Your task to perform on an android device: Clear all items from cart on ebay.com. Add razer blade to the cart on ebay.com, then select checkout. Image 0: 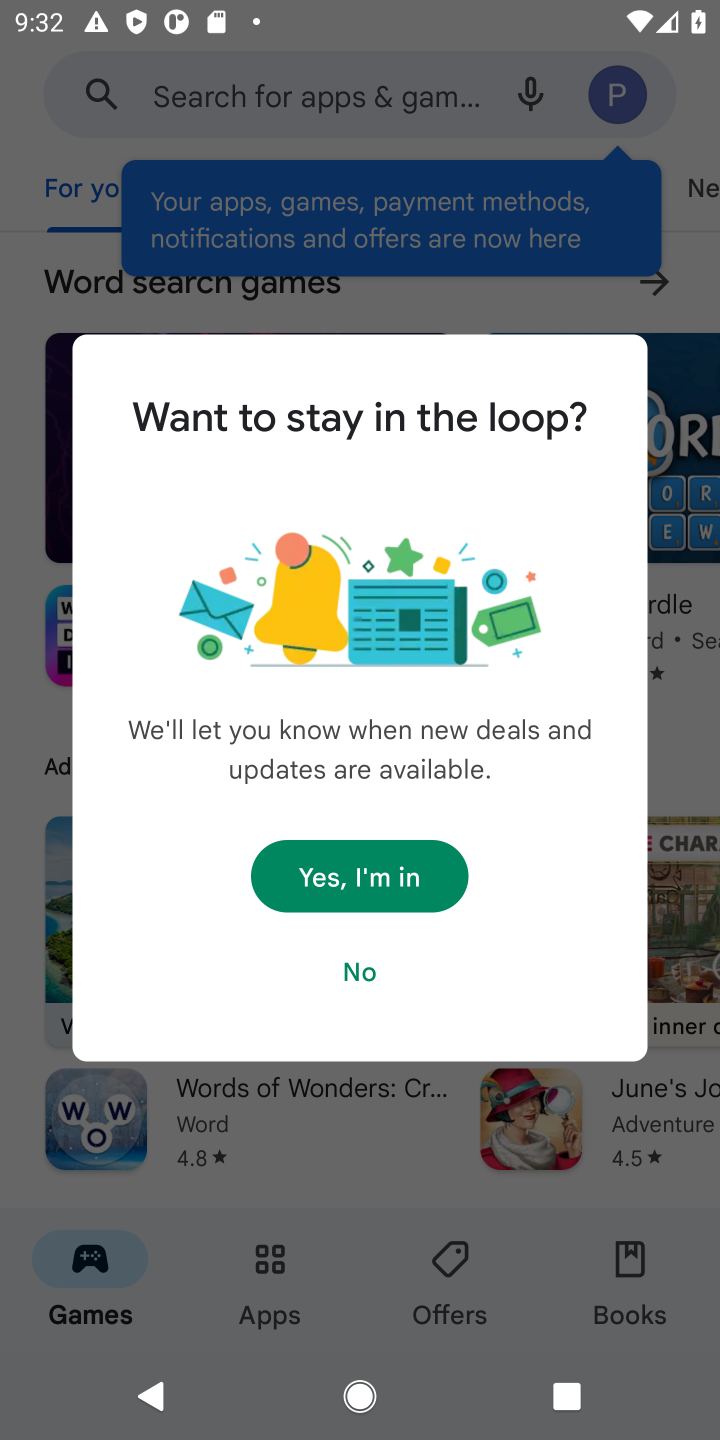
Step 0: press home button
Your task to perform on an android device: Clear all items from cart on ebay.com. Add razer blade to the cart on ebay.com, then select checkout. Image 1: 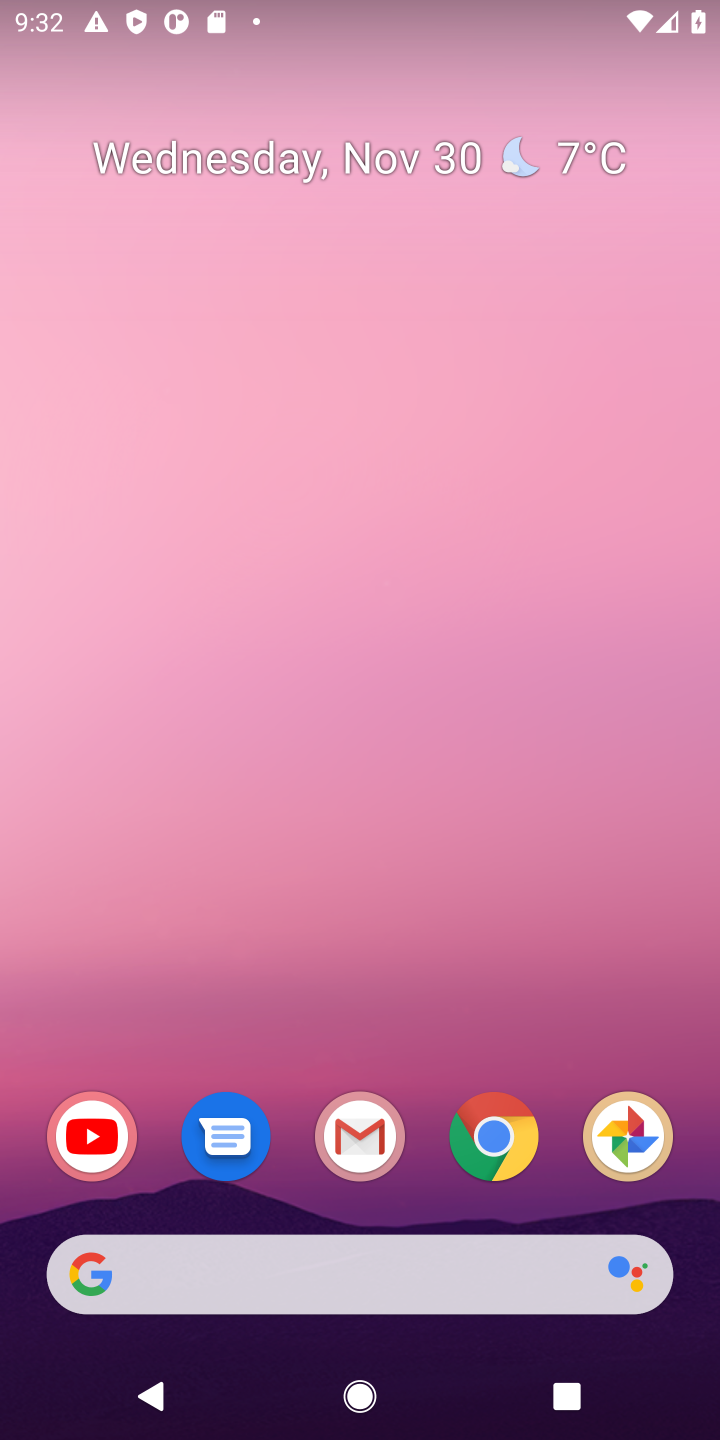
Step 1: click (495, 1153)
Your task to perform on an android device: Clear all items from cart on ebay.com. Add razer blade to the cart on ebay.com, then select checkout. Image 2: 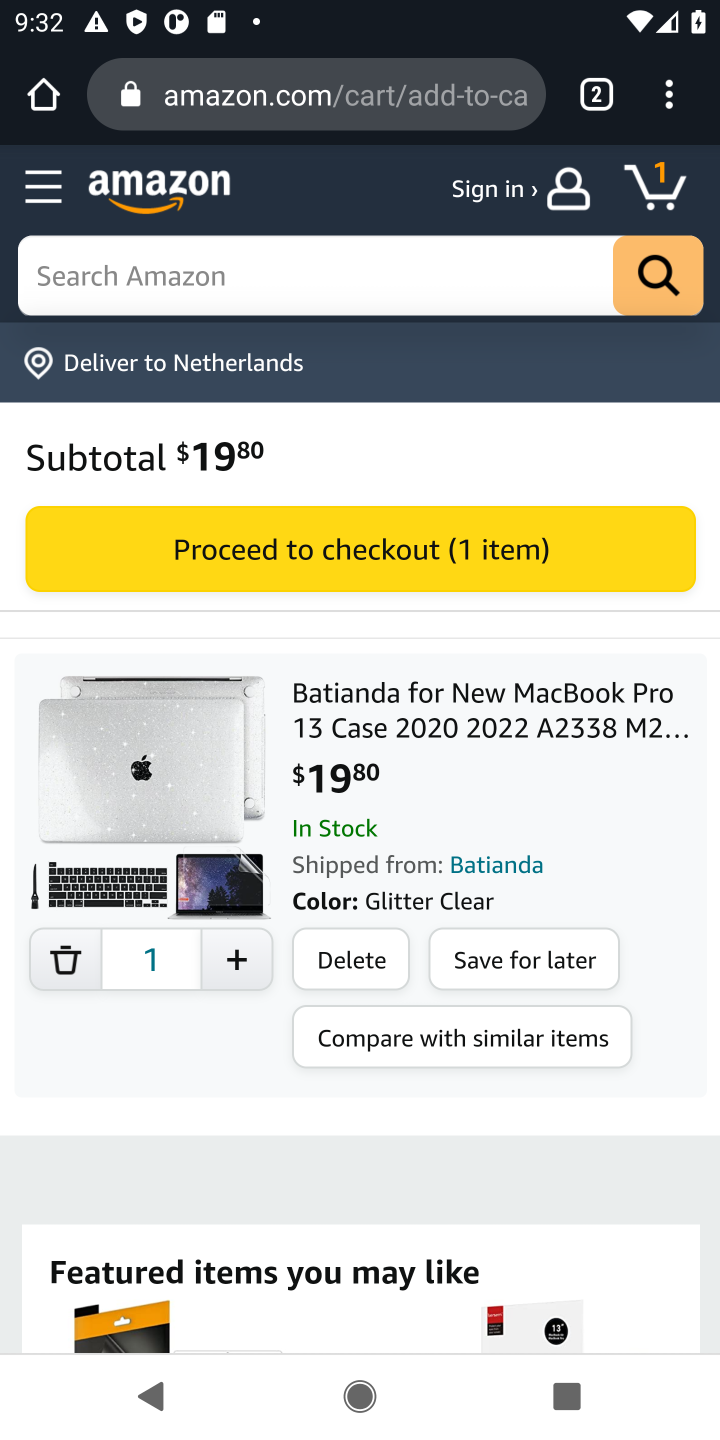
Step 2: click (336, 100)
Your task to perform on an android device: Clear all items from cart on ebay.com. Add razer blade to the cart on ebay.com, then select checkout. Image 3: 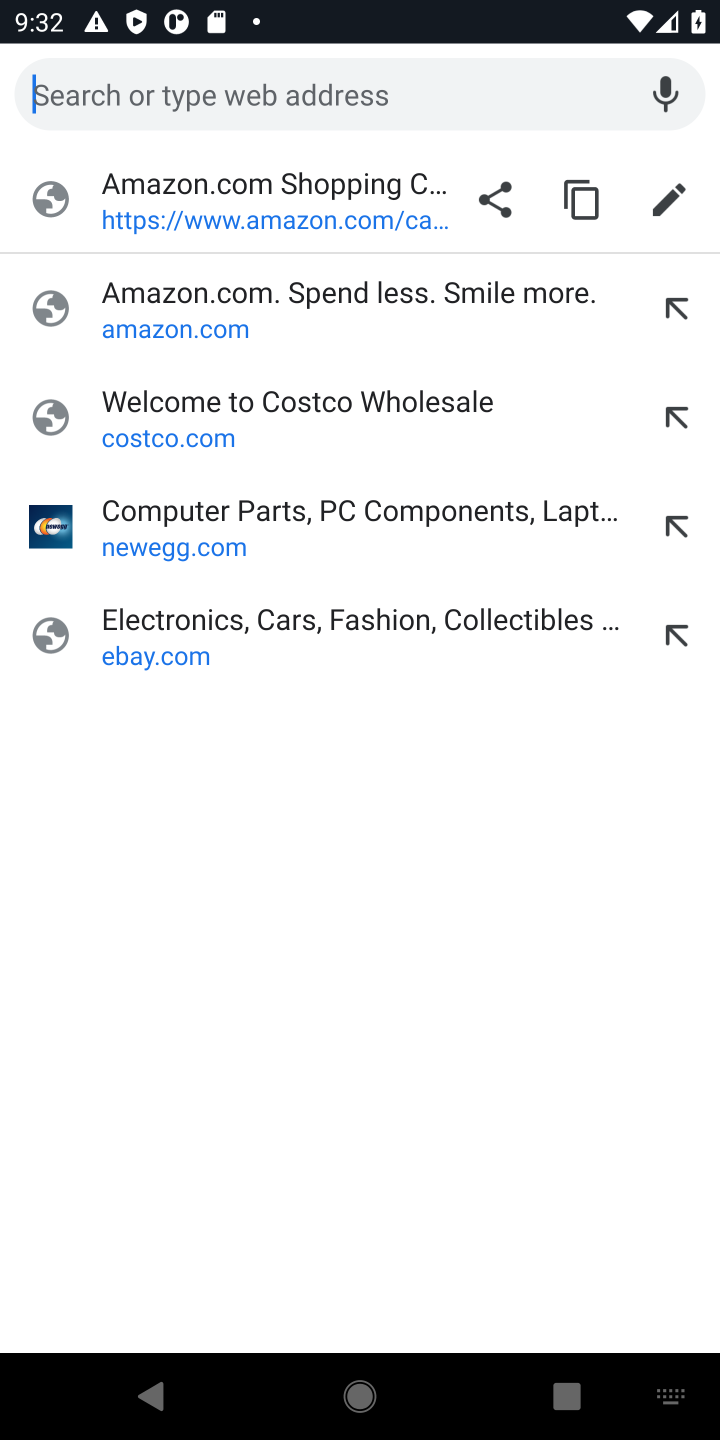
Step 3: click (113, 645)
Your task to perform on an android device: Clear all items from cart on ebay.com. Add razer blade to the cart on ebay.com, then select checkout. Image 4: 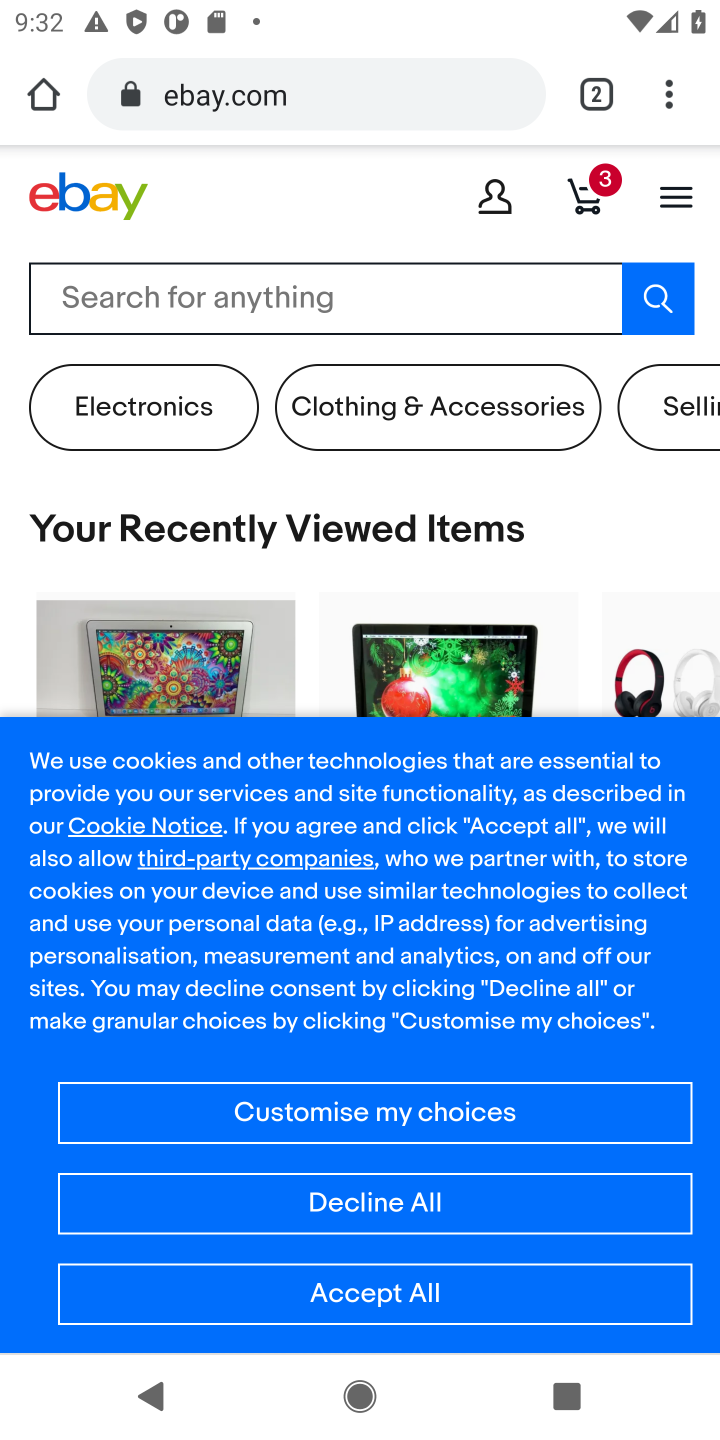
Step 4: click (582, 208)
Your task to perform on an android device: Clear all items from cart on ebay.com. Add razer blade to the cart on ebay.com, then select checkout. Image 5: 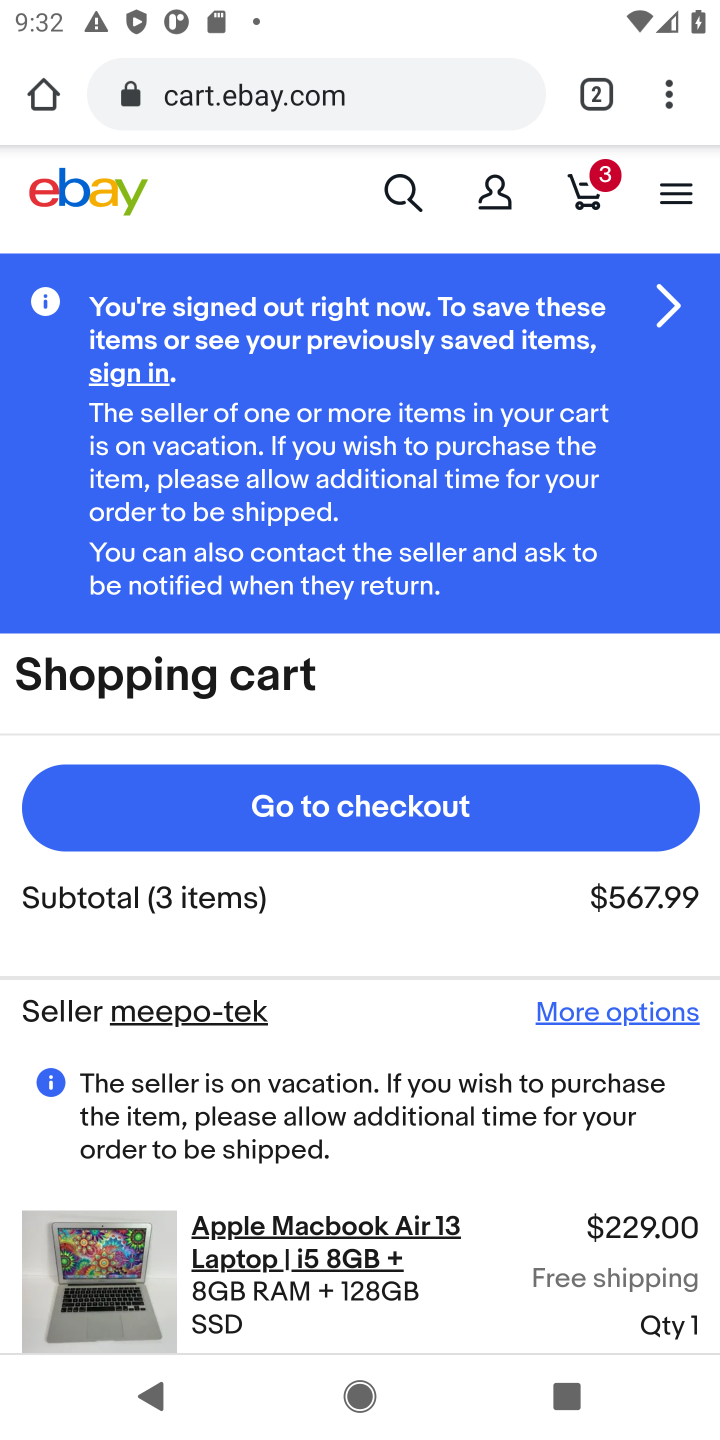
Step 5: drag from (357, 1142) to (343, 612)
Your task to perform on an android device: Clear all items from cart on ebay.com. Add razer blade to the cart on ebay.com, then select checkout. Image 6: 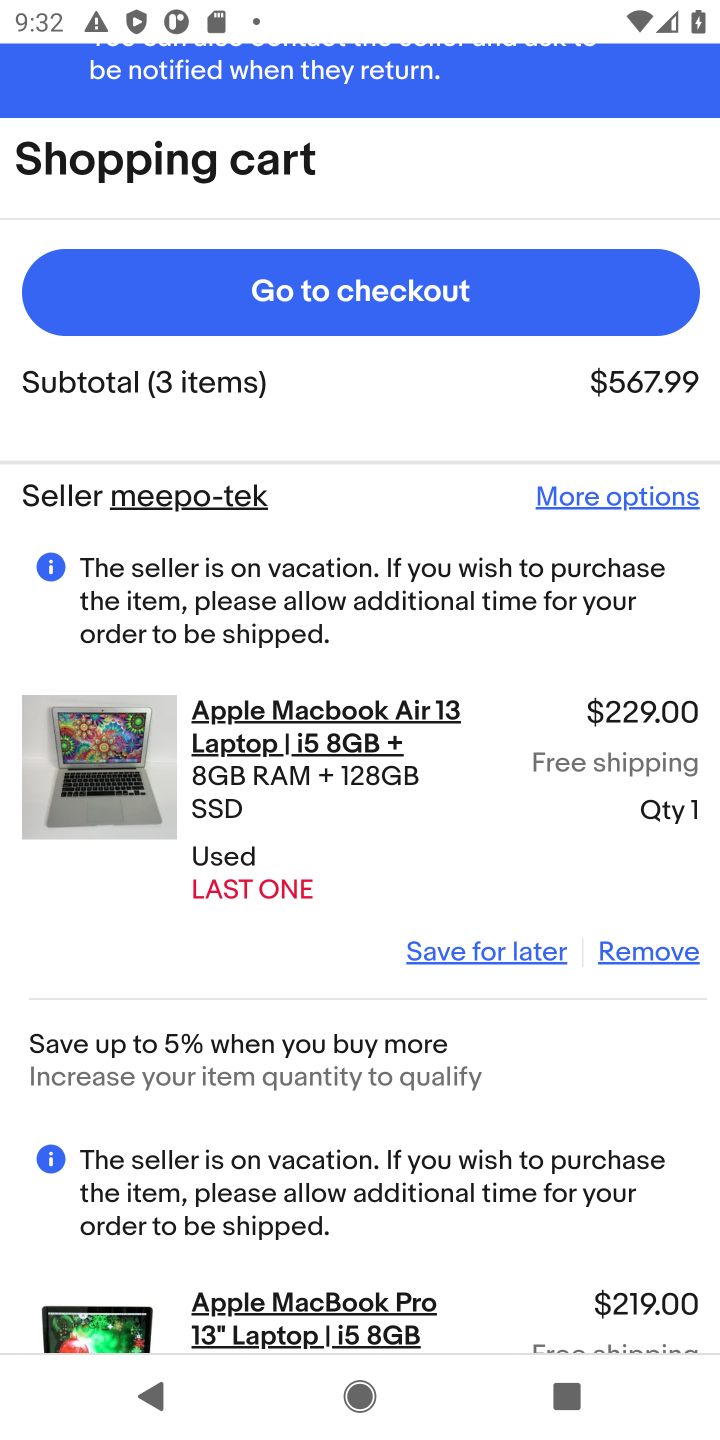
Step 6: click (654, 959)
Your task to perform on an android device: Clear all items from cart on ebay.com. Add razer blade to the cart on ebay.com, then select checkout. Image 7: 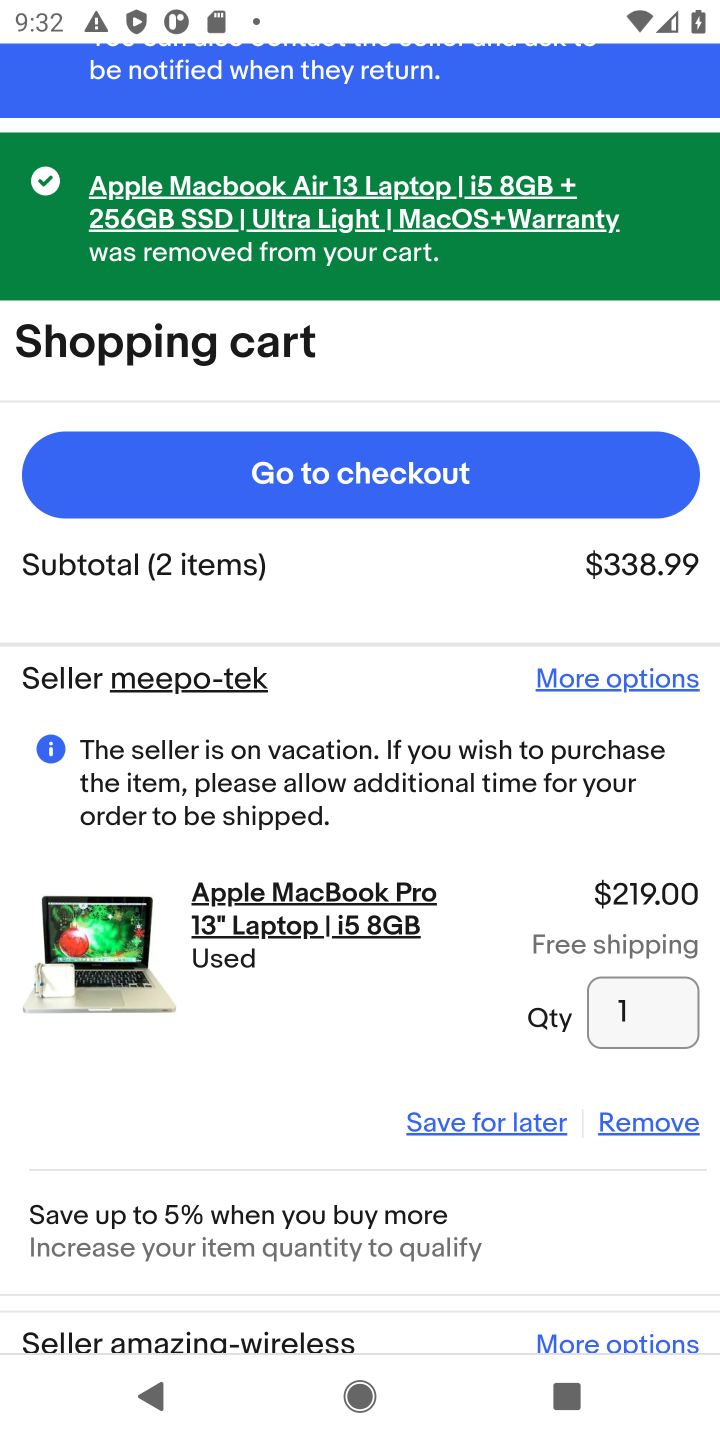
Step 7: click (619, 1136)
Your task to perform on an android device: Clear all items from cart on ebay.com. Add razer blade to the cart on ebay.com, then select checkout. Image 8: 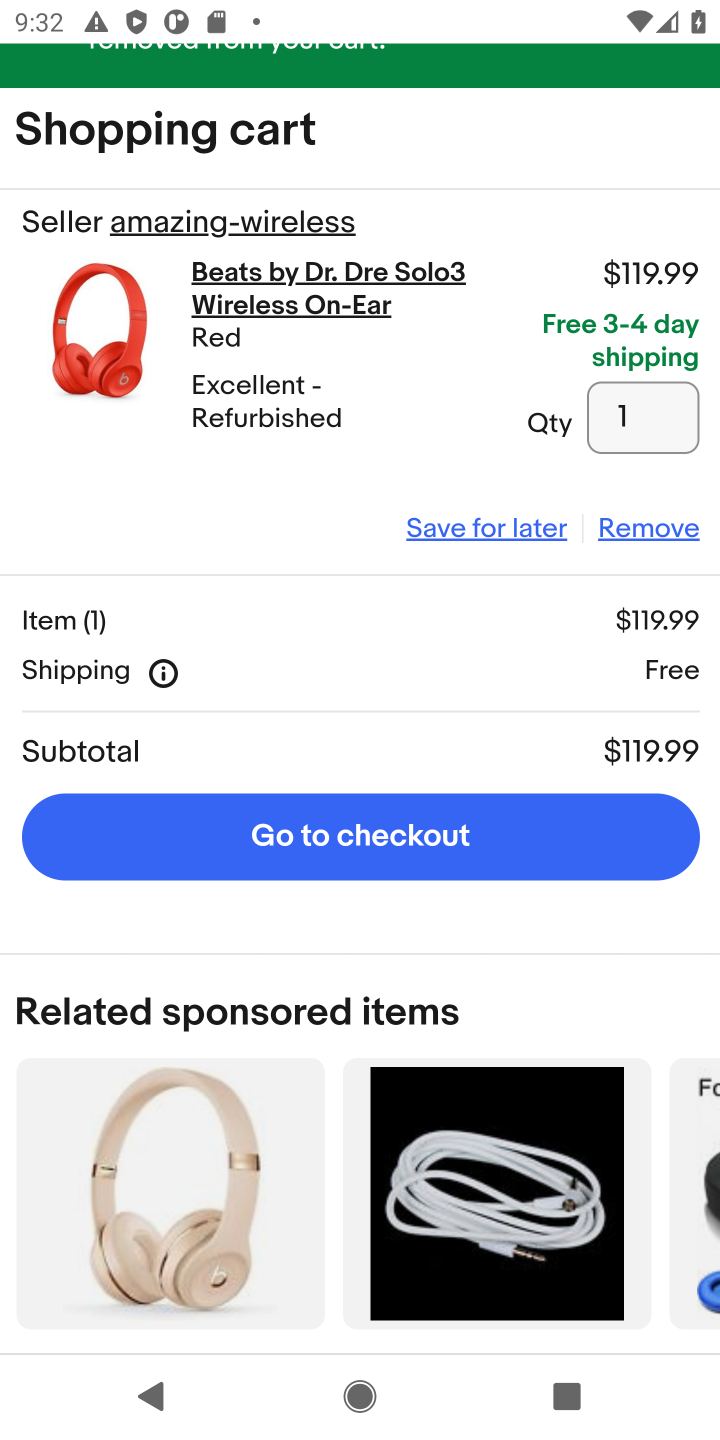
Step 8: click (610, 536)
Your task to perform on an android device: Clear all items from cart on ebay.com. Add razer blade to the cart on ebay.com, then select checkout. Image 9: 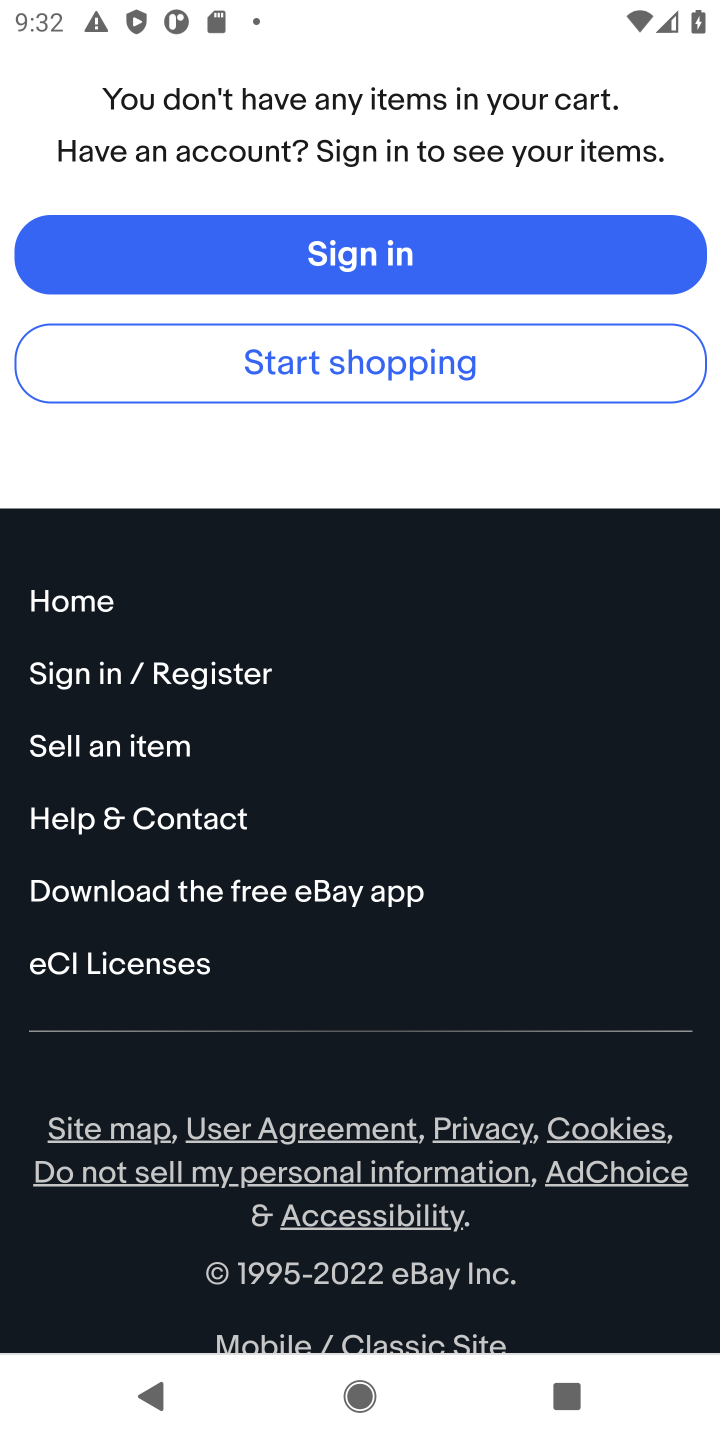
Step 9: drag from (601, 496) to (648, 1005)
Your task to perform on an android device: Clear all items from cart on ebay.com. Add razer blade to the cart on ebay.com, then select checkout. Image 10: 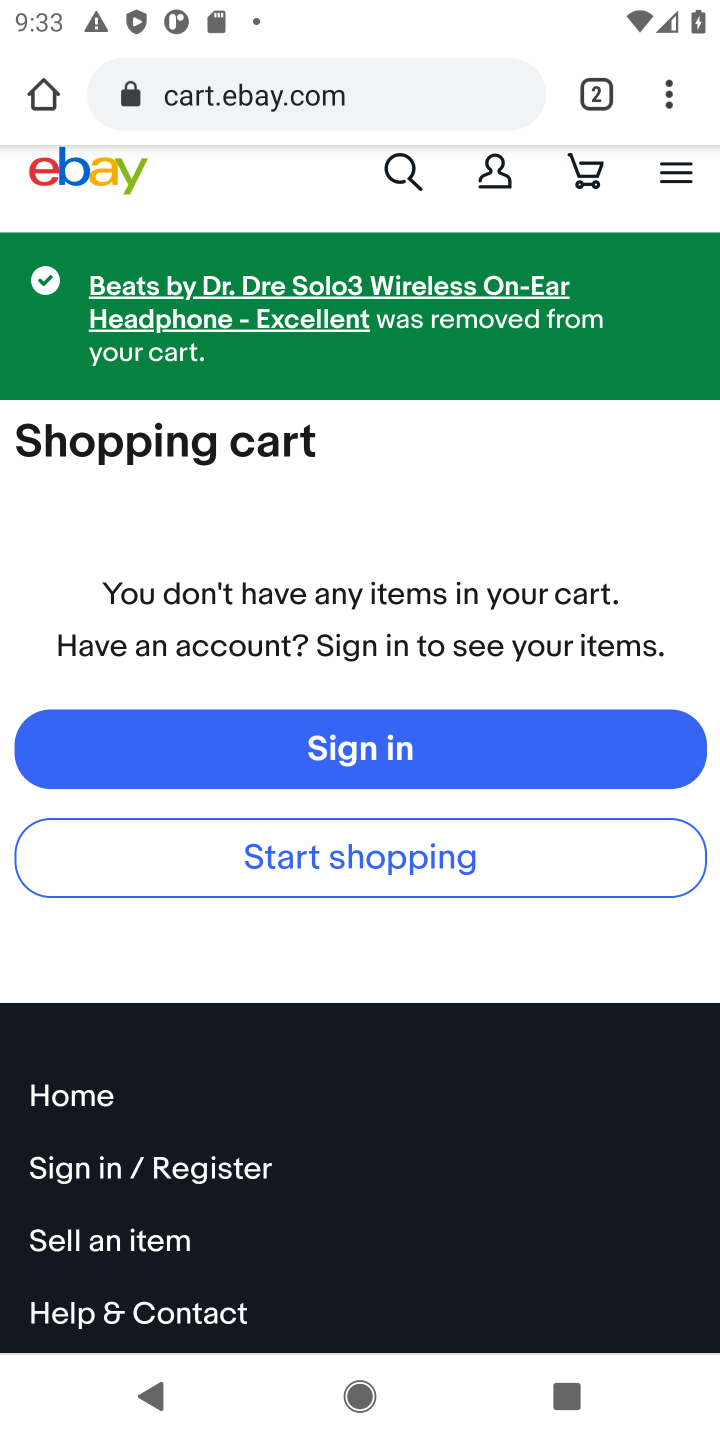
Step 10: click (396, 182)
Your task to perform on an android device: Clear all items from cart on ebay.com. Add razer blade to the cart on ebay.com, then select checkout. Image 11: 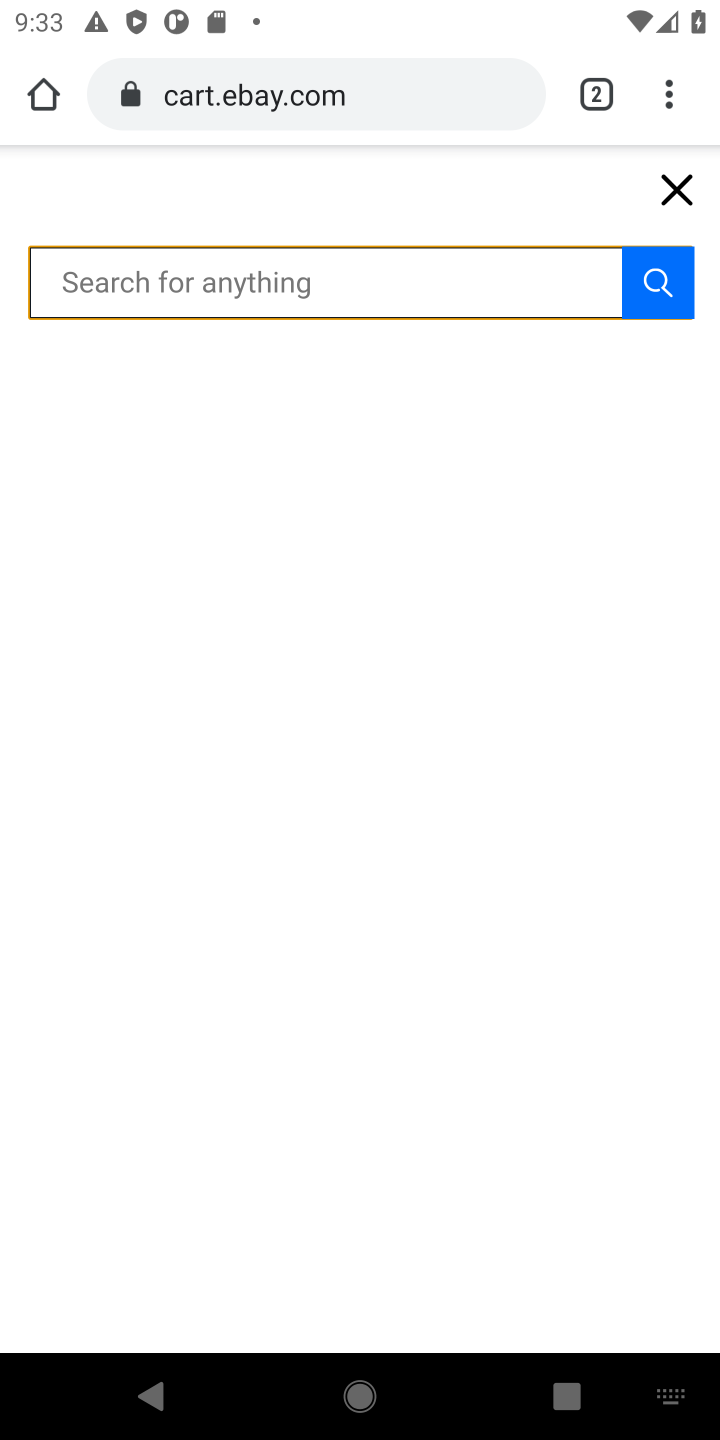
Step 11: type " razer blade"
Your task to perform on an android device: Clear all items from cart on ebay.com. Add razer blade to the cart on ebay.com, then select checkout. Image 12: 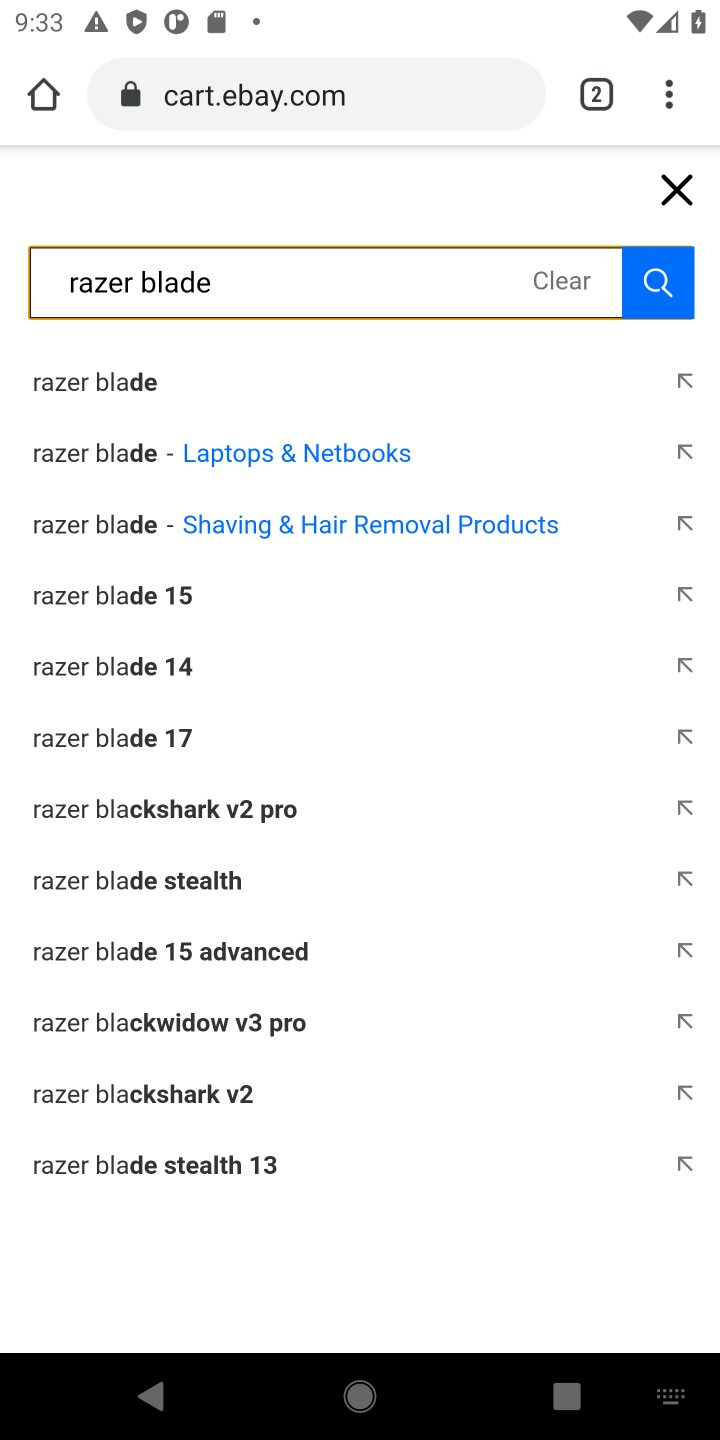
Step 12: click (95, 394)
Your task to perform on an android device: Clear all items from cart on ebay.com. Add razer blade to the cart on ebay.com, then select checkout. Image 13: 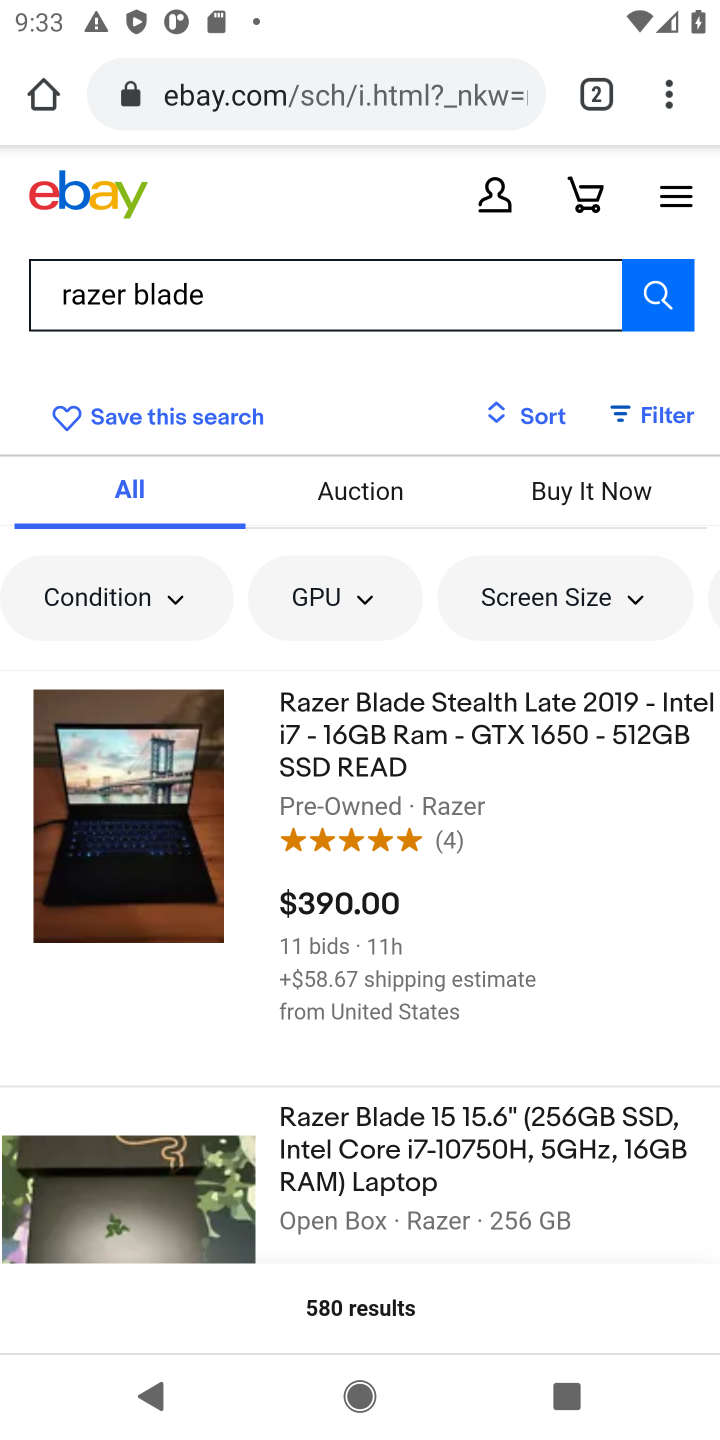
Step 13: drag from (483, 1259) to (430, 790)
Your task to perform on an android device: Clear all items from cart on ebay.com. Add razer blade to the cart on ebay.com, then select checkout. Image 14: 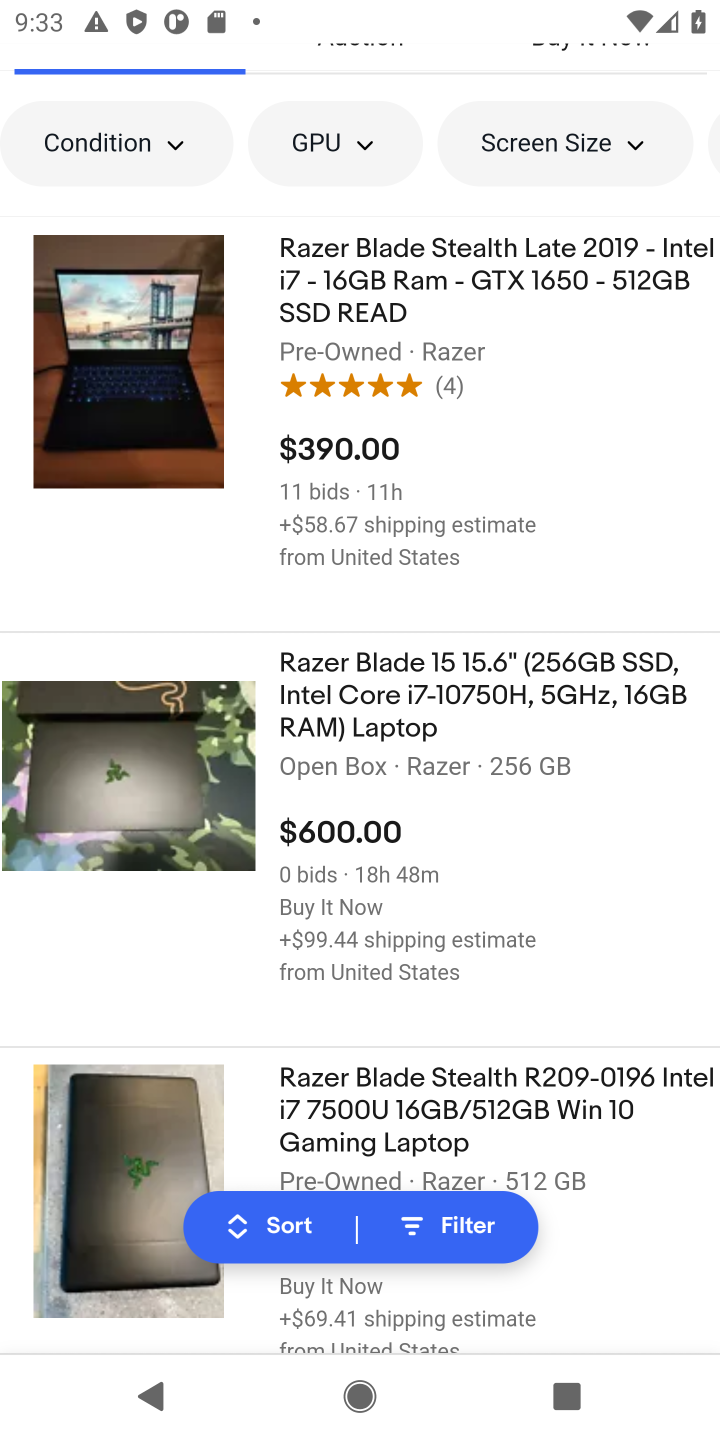
Step 14: drag from (468, 1021) to (431, 761)
Your task to perform on an android device: Clear all items from cart on ebay.com. Add razer blade to the cart on ebay.com, then select checkout. Image 15: 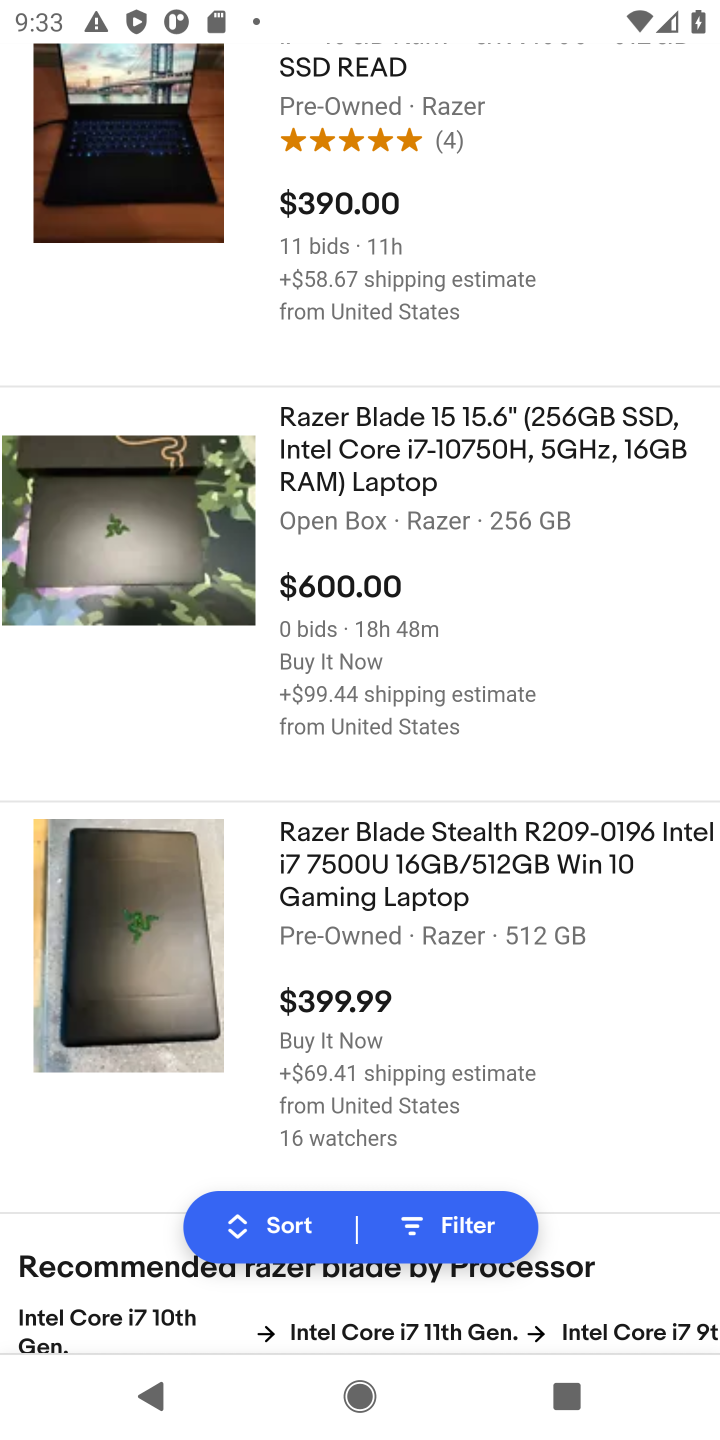
Step 15: click (366, 891)
Your task to perform on an android device: Clear all items from cart on ebay.com. Add razer blade to the cart on ebay.com, then select checkout. Image 16: 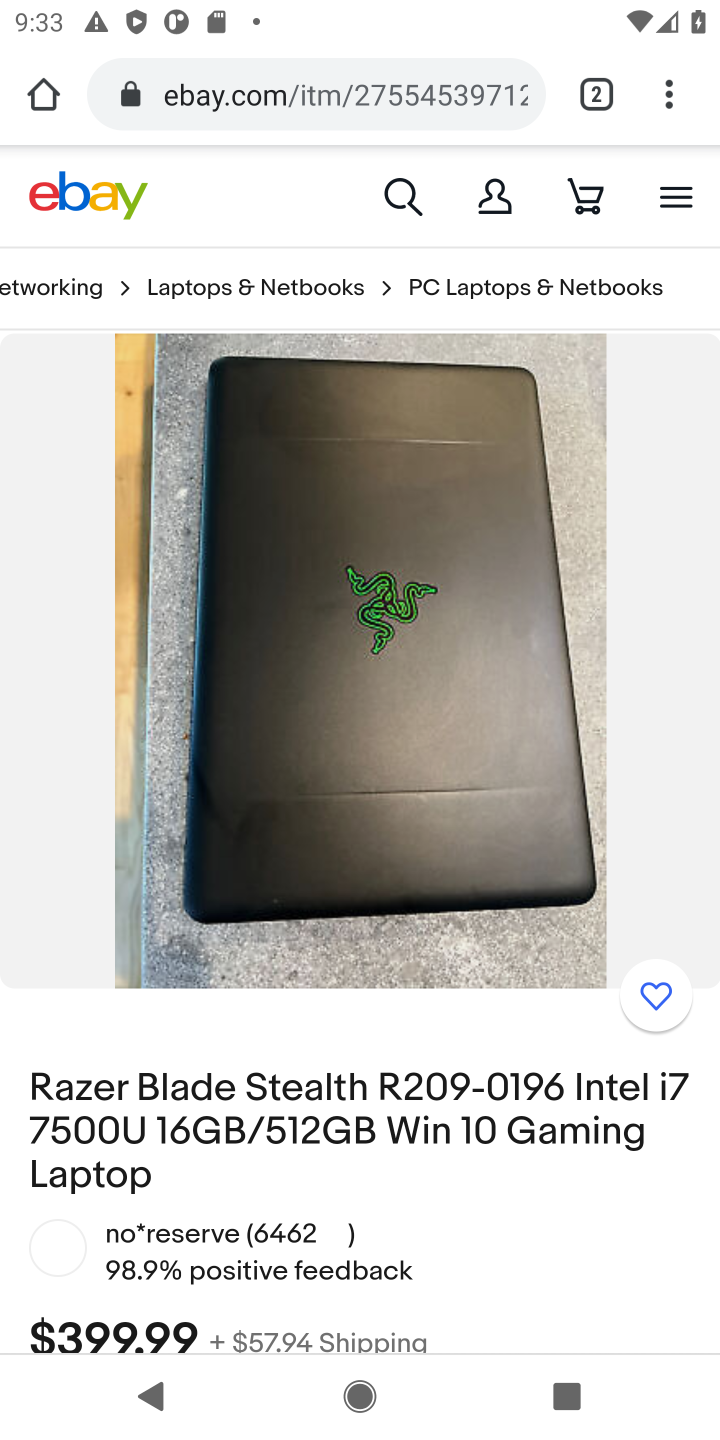
Step 16: drag from (341, 1118) to (312, 628)
Your task to perform on an android device: Clear all items from cart on ebay.com. Add razer blade to the cart on ebay.com, then select checkout. Image 17: 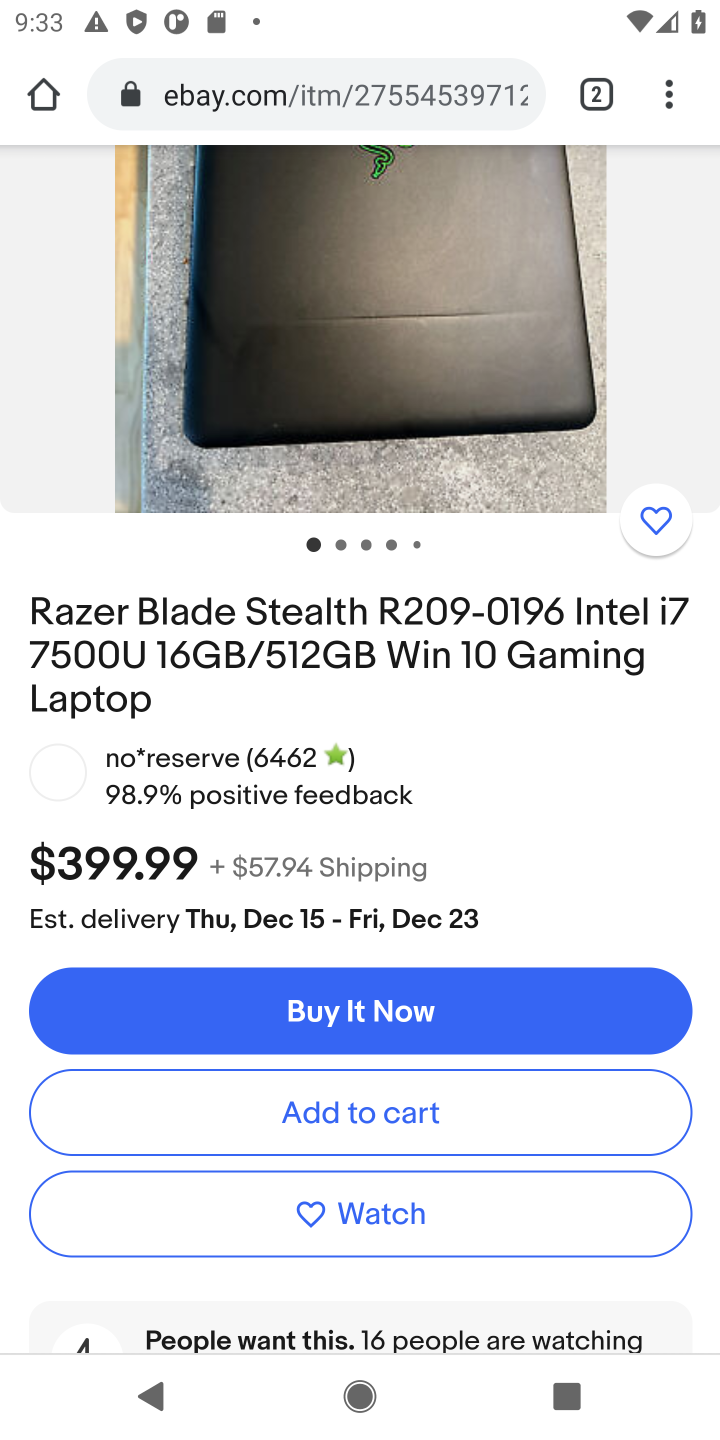
Step 17: click (409, 1092)
Your task to perform on an android device: Clear all items from cart on ebay.com. Add razer blade to the cart on ebay.com, then select checkout. Image 18: 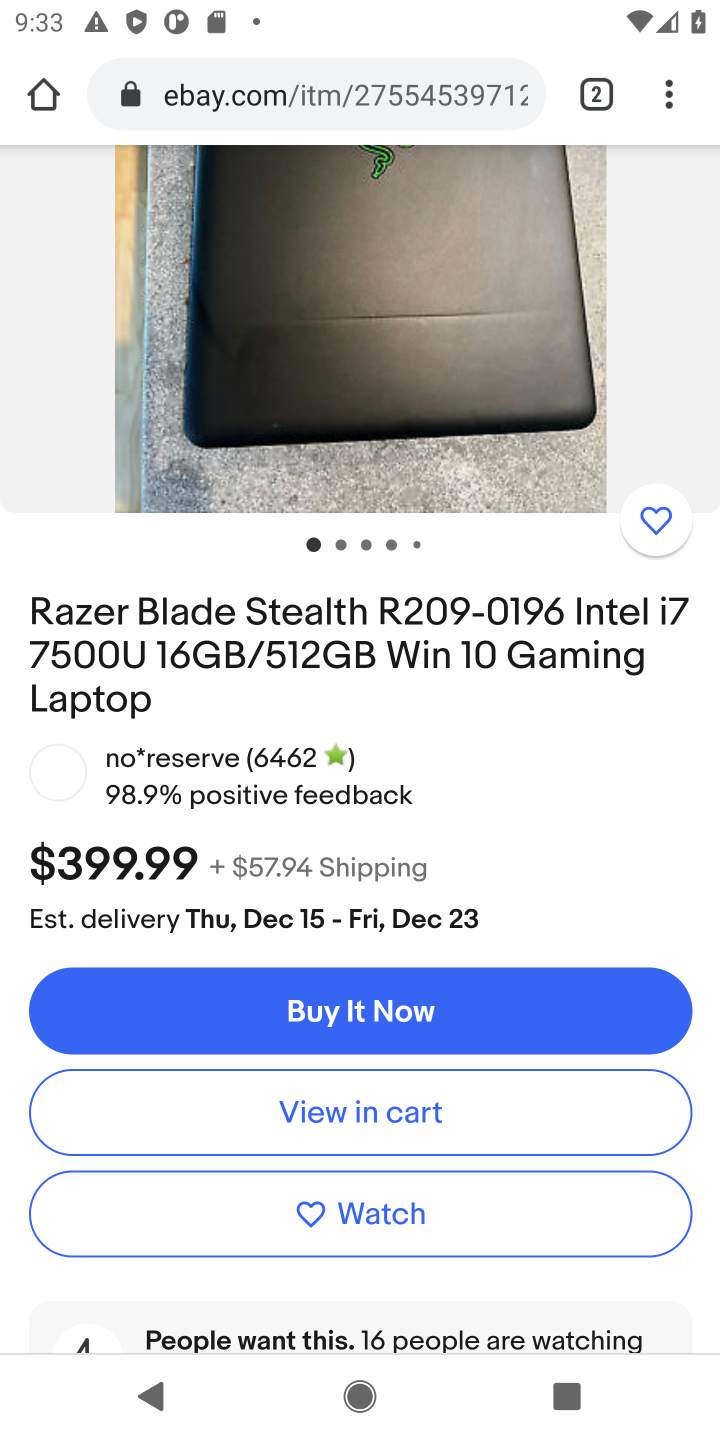
Step 18: click (366, 1121)
Your task to perform on an android device: Clear all items from cart on ebay.com. Add razer blade to the cart on ebay.com, then select checkout. Image 19: 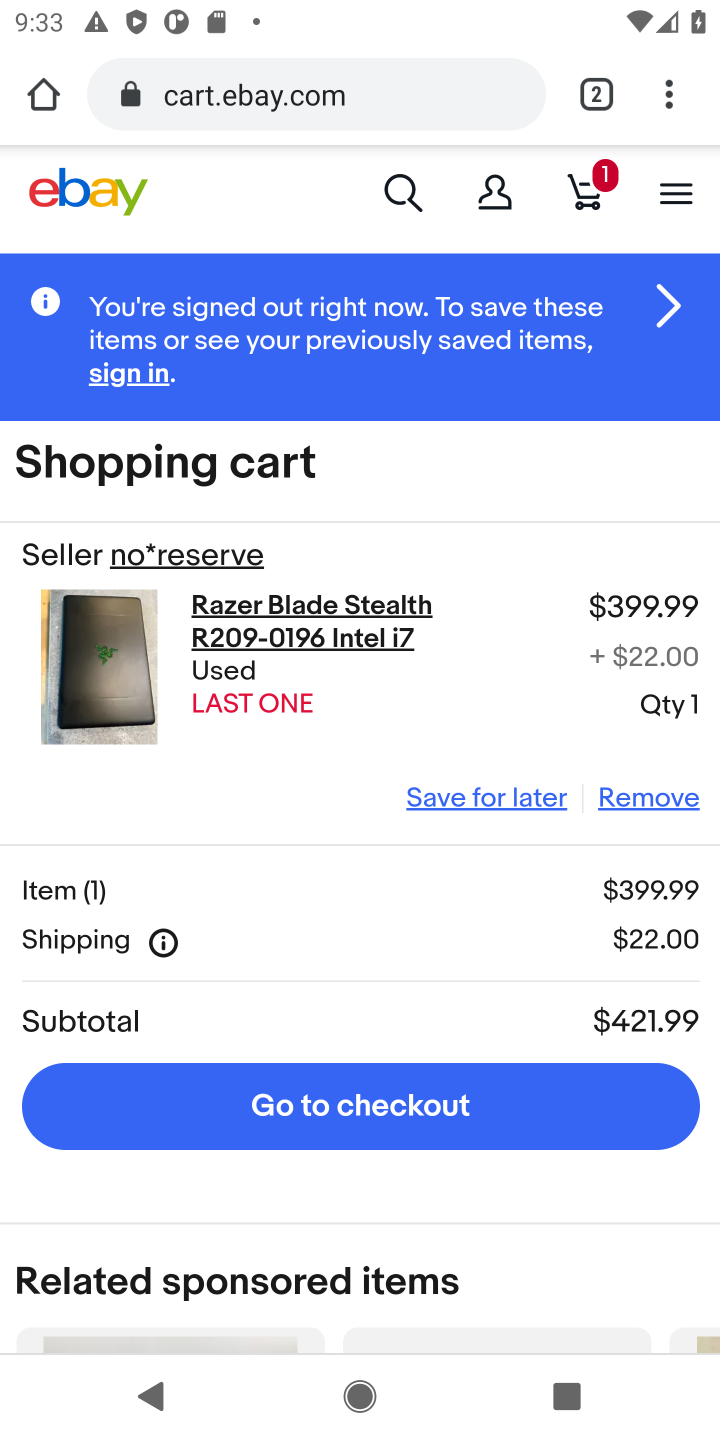
Step 19: click (361, 1121)
Your task to perform on an android device: Clear all items from cart on ebay.com. Add razer blade to the cart on ebay.com, then select checkout. Image 20: 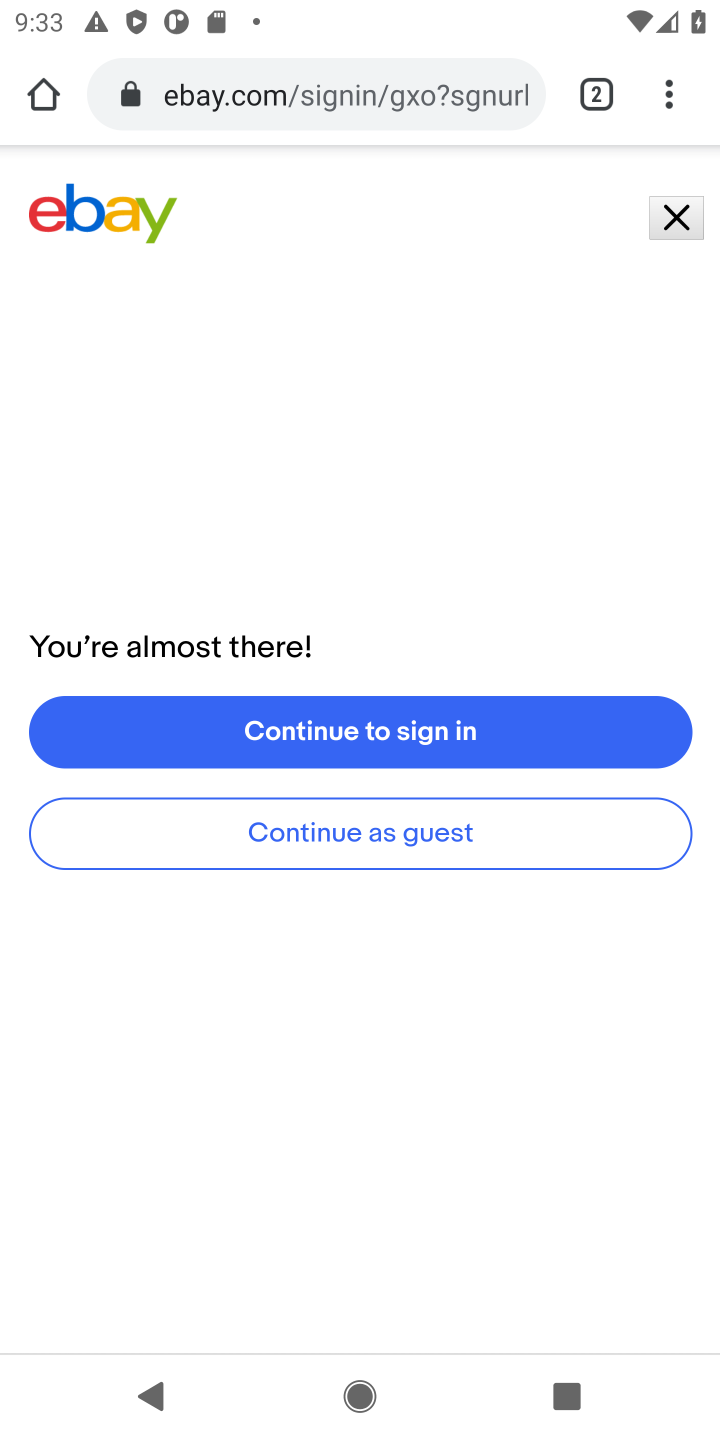
Step 20: task complete